Your task to perform on an android device: turn on priority inbox in the gmail app Image 0: 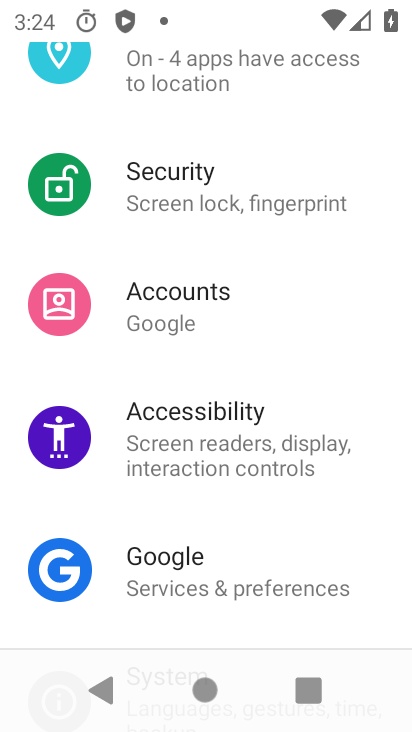
Step 0: press home button
Your task to perform on an android device: turn on priority inbox in the gmail app Image 1: 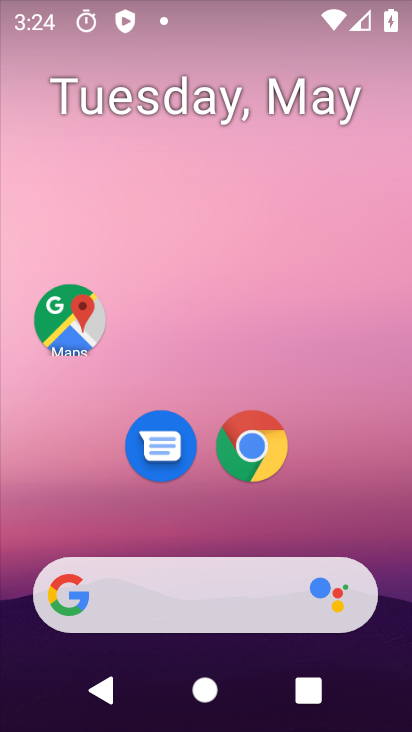
Step 1: drag from (241, 724) to (256, 253)
Your task to perform on an android device: turn on priority inbox in the gmail app Image 2: 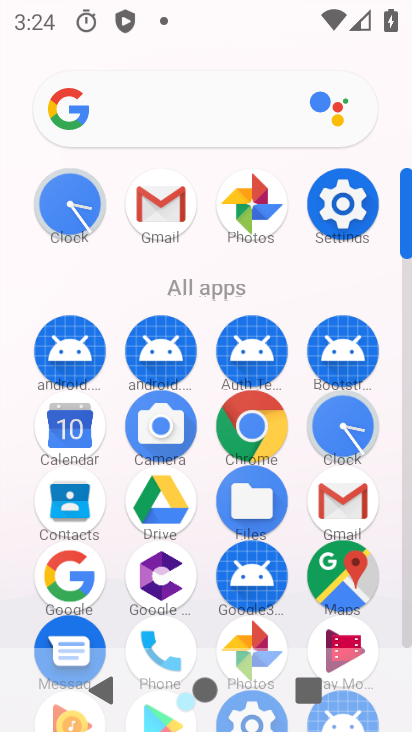
Step 2: click (342, 495)
Your task to perform on an android device: turn on priority inbox in the gmail app Image 3: 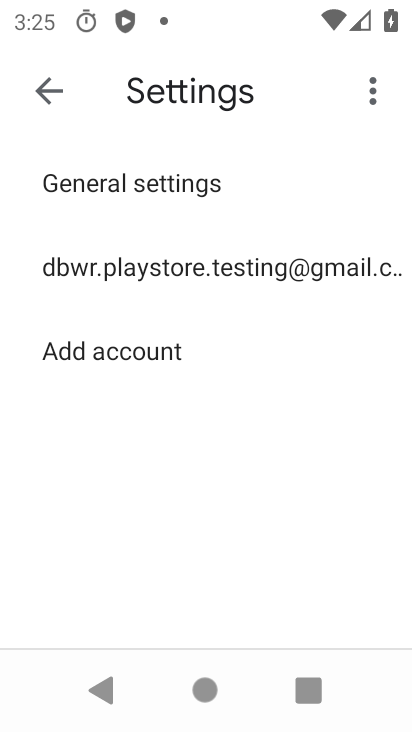
Step 3: click (167, 265)
Your task to perform on an android device: turn on priority inbox in the gmail app Image 4: 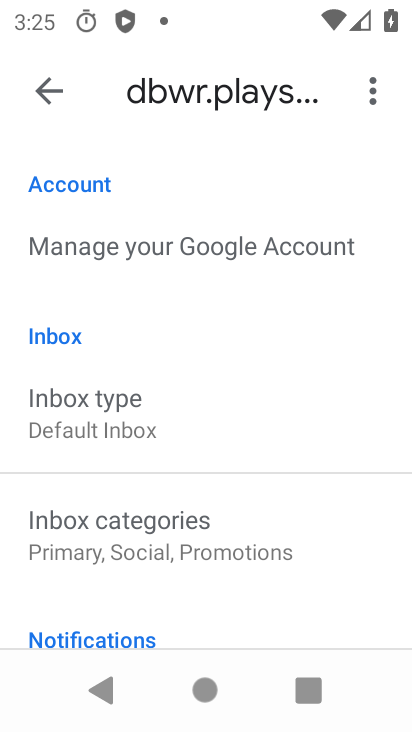
Step 4: click (81, 413)
Your task to perform on an android device: turn on priority inbox in the gmail app Image 5: 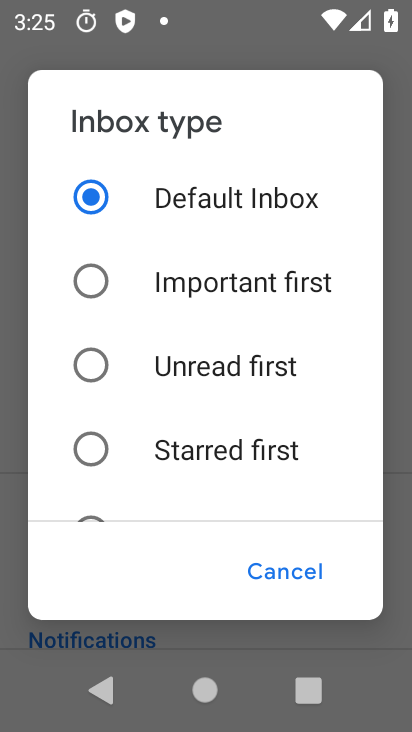
Step 5: drag from (257, 483) to (257, 157)
Your task to perform on an android device: turn on priority inbox in the gmail app Image 6: 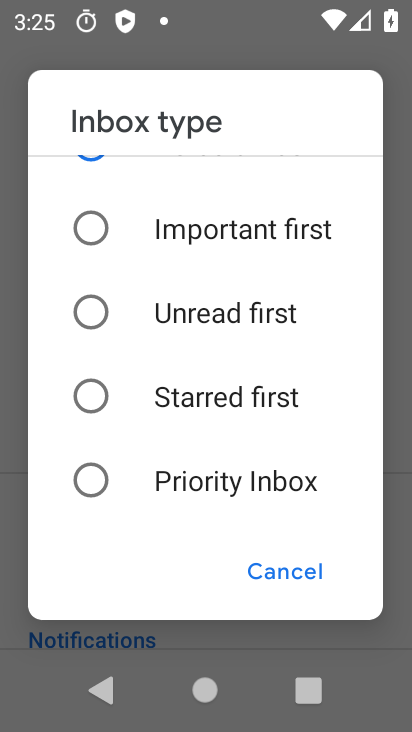
Step 6: click (88, 472)
Your task to perform on an android device: turn on priority inbox in the gmail app Image 7: 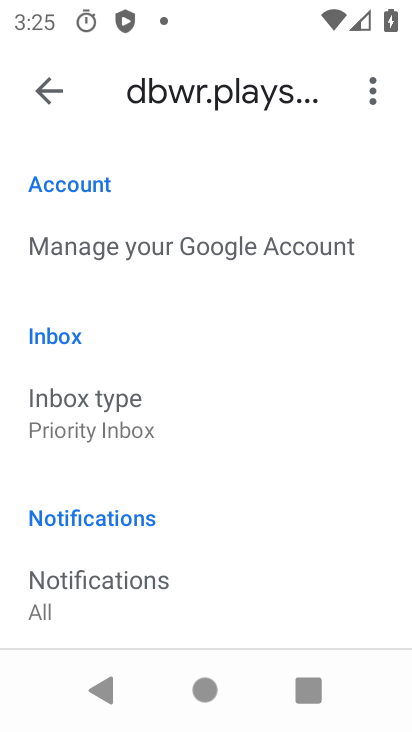
Step 7: task complete